Your task to perform on an android device: empty trash in google photos Image 0: 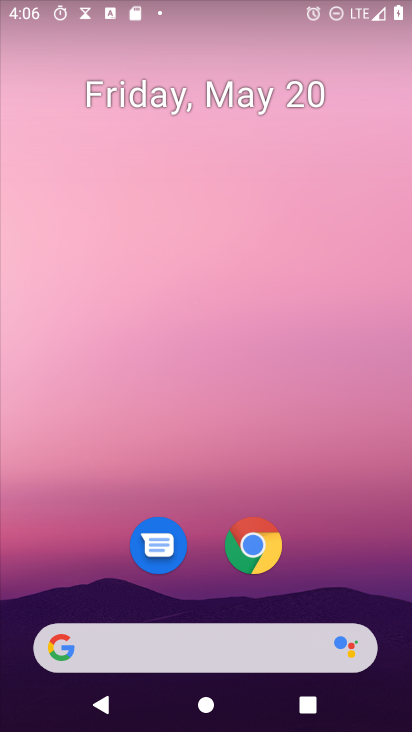
Step 0: click (327, 77)
Your task to perform on an android device: empty trash in google photos Image 1: 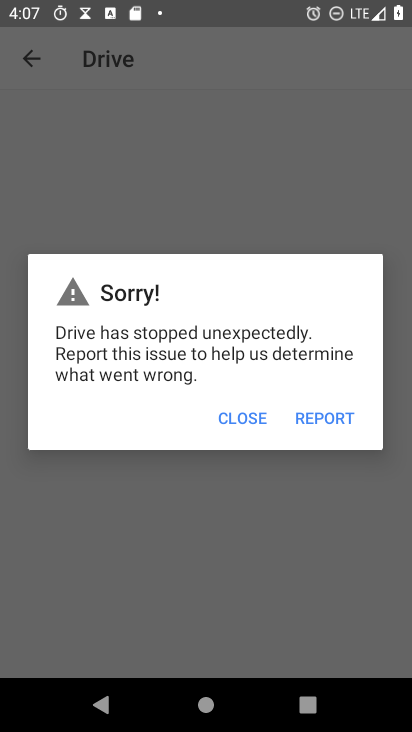
Step 1: press home button
Your task to perform on an android device: empty trash in google photos Image 2: 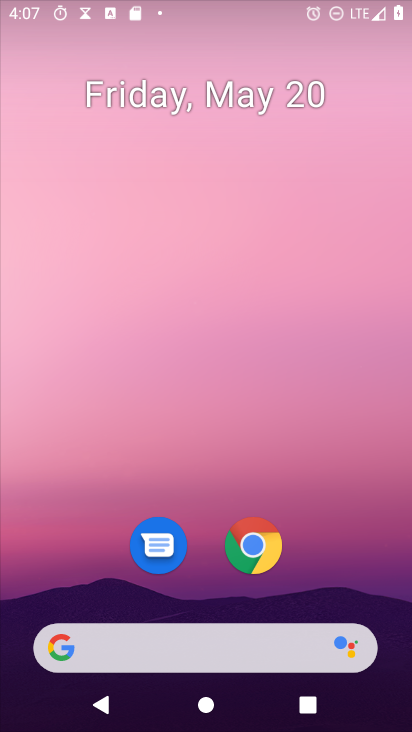
Step 2: drag from (227, 622) to (160, 24)
Your task to perform on an android device: empty trash in google photos Image 3: 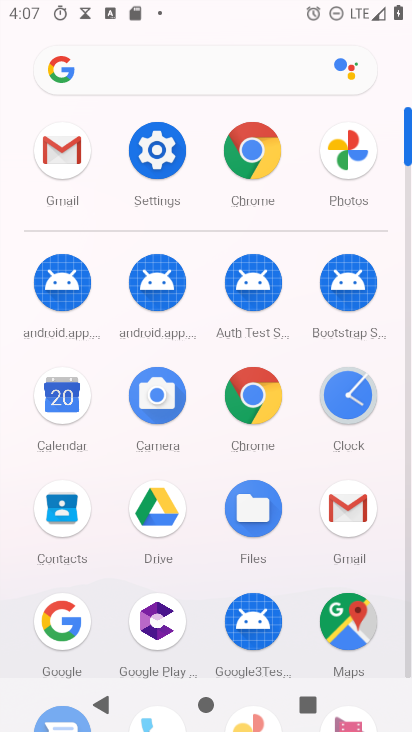
Step 3: drag from (212, 552) to (218, 179)
Your task to perform on an android device: empty trash in google photos Image 4: 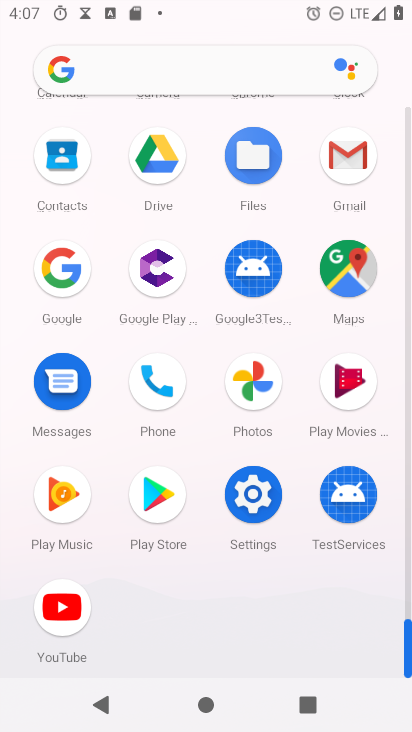
Step 4: click (249, 381)
Your task to perform on an android device: empty trash in google photos Image 5: 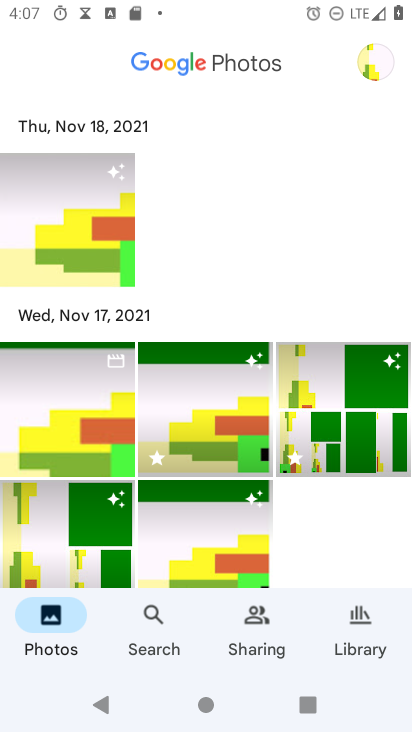
Step 5: click (379, 60)
Your task to perform on an android device: empty trash in google photos Image 6: 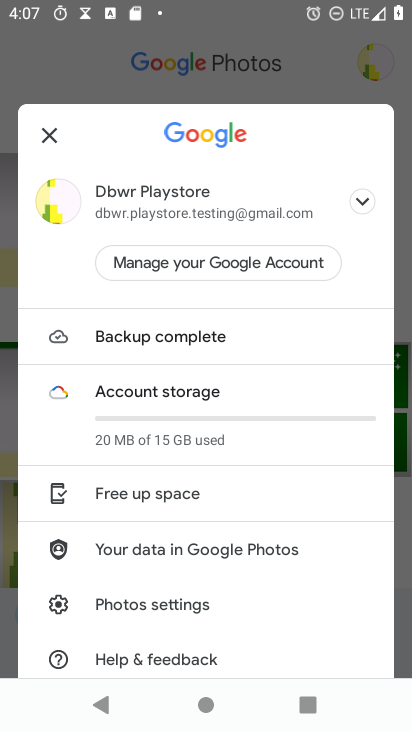
Step 6: click (54, 132)
Your task to perform on an android device: empty trash in google photos Image 7: 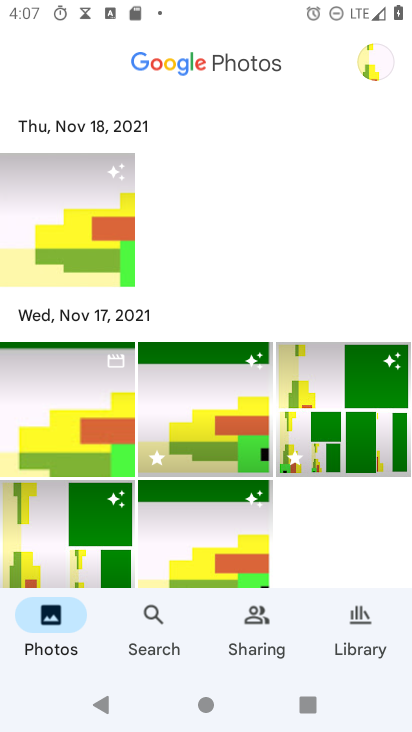
Step 7: click (362, 625)
Your task to perform on an android device: empty trash in google photos Image 8: 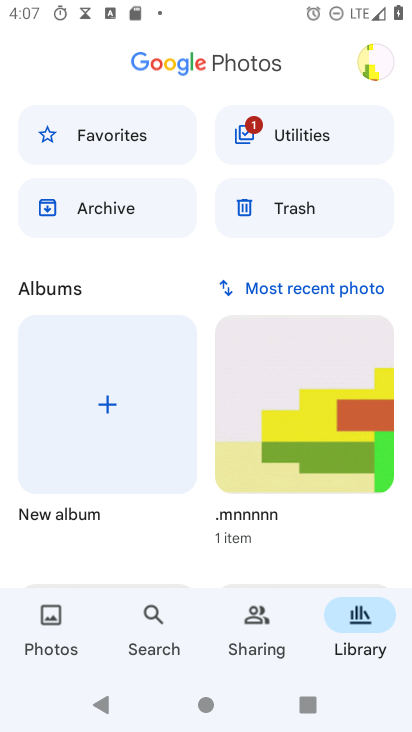
Step 8: click (308, 195)
Your task to perform on an android device: empty trash in google photos Image 9: 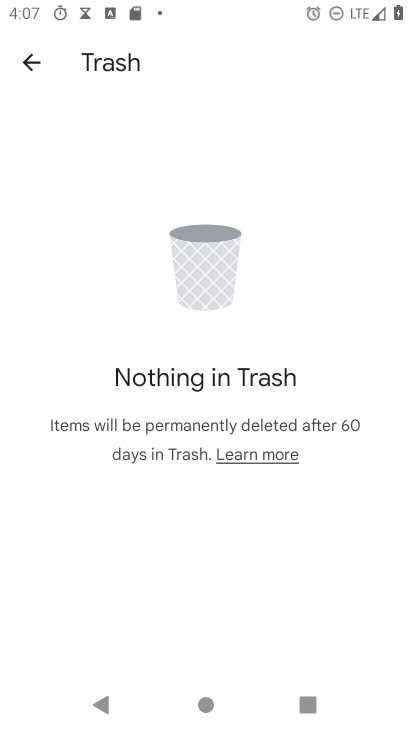
Step 9: task complete